Your task to perform on an android device: turn off picture-in-picture Image 0: 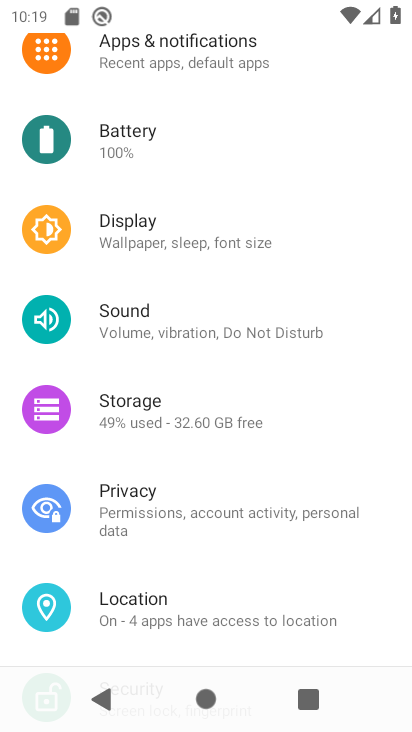
Step 0: press home button
Your task to perform on an android device: turn off picture-in-picture Image 1: 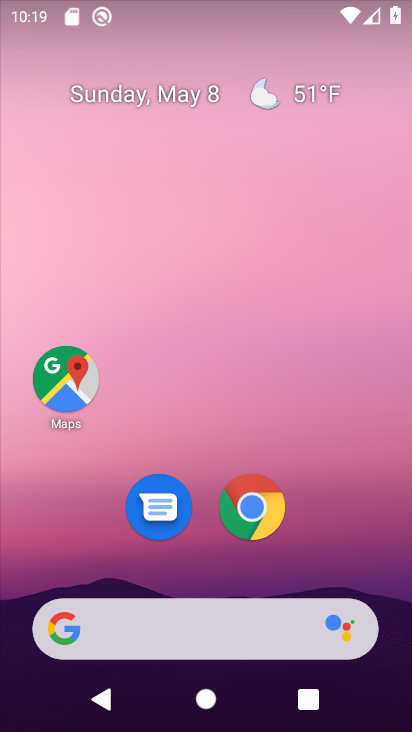
Step 1: click (250, 503)
Your task to perform on an android device: turn off picture-in-picture Image 2: 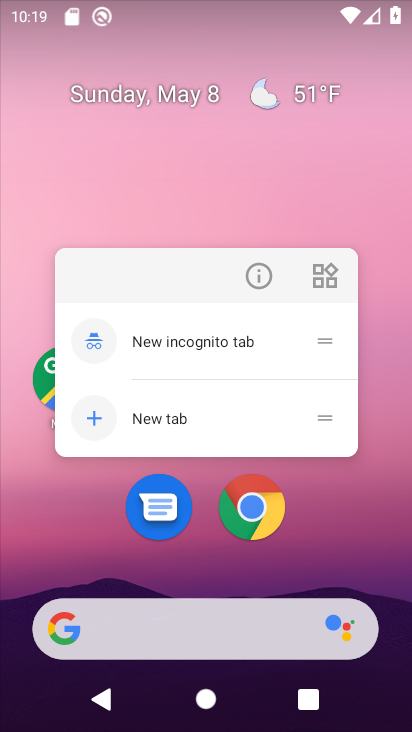
Step 2: click (259, 274)
Your task to perform on an android device: turn off picture-in-picture Image 3: 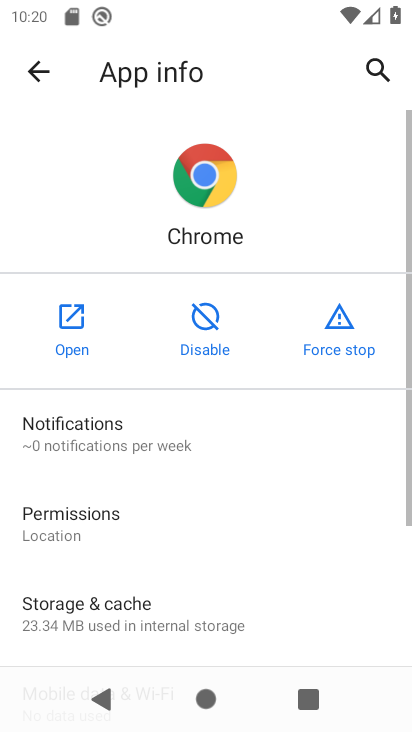
Step 3: drag from (212, 592) to (225, 208)
Your task to perform on an android device: turn off picture-in-picture Image 4: 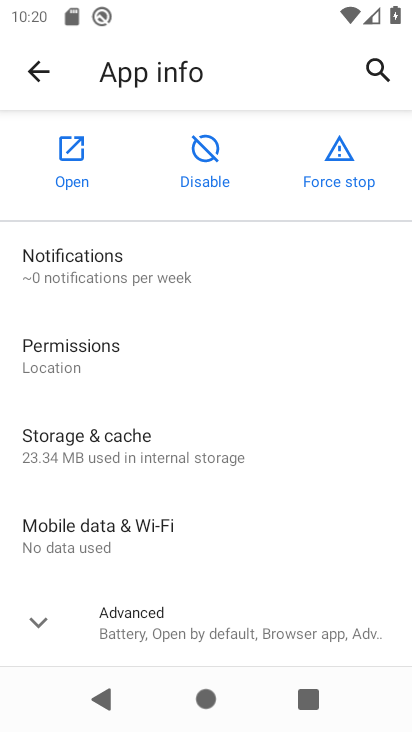
Step 4: click (38, 615)
Your task to perform on an android device: turn off picture-in-picture Image 5: 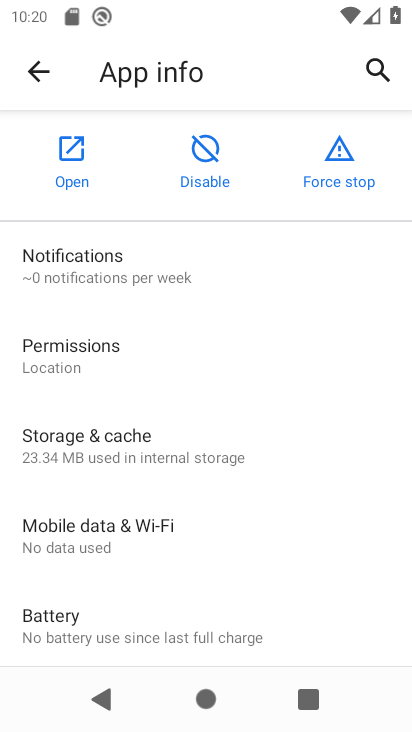
Step 5: drag from (173, 603) to (178, 506)
Your task to perform on an android device: turn off picture-in-picture Image 6: 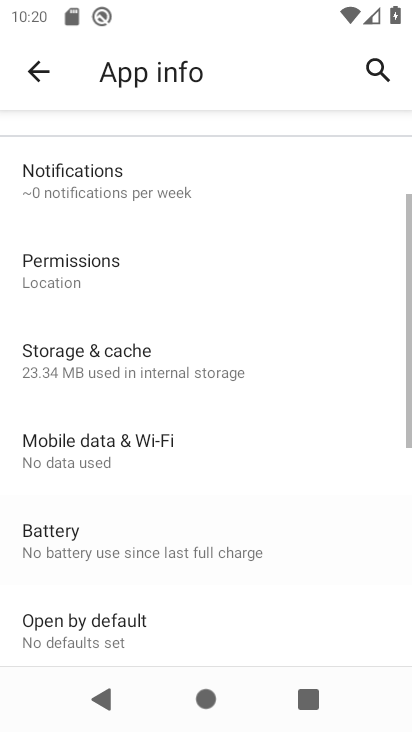
Step 6: drag from (182, 372) to (183, 262)
Your task to perform on an android device: turn off picture-in-picture Image 7: 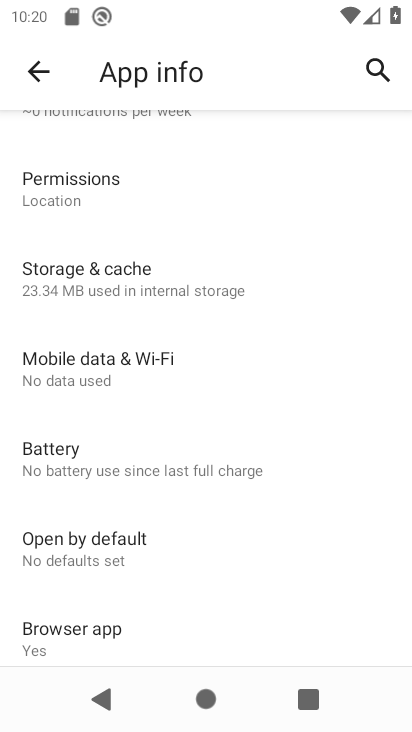
Step 7: drag from (159, 627) to (178, 260)
Your task to perform on an android device: turn off picture-in-picture Image 8: 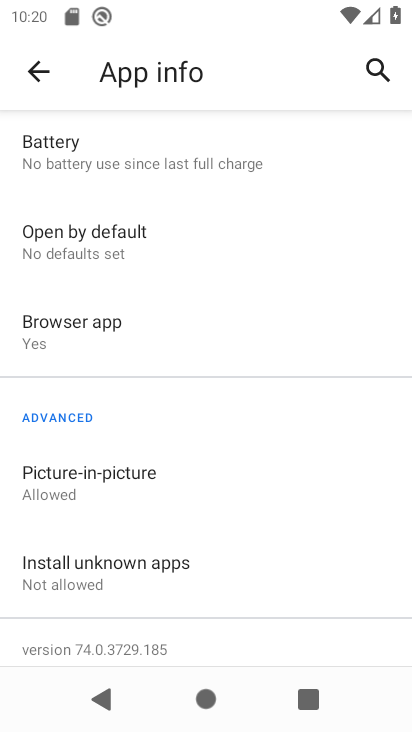
Step 8: click (82, 485)
Your task to perform on an android device: turn off picture-in-picture Image 9: 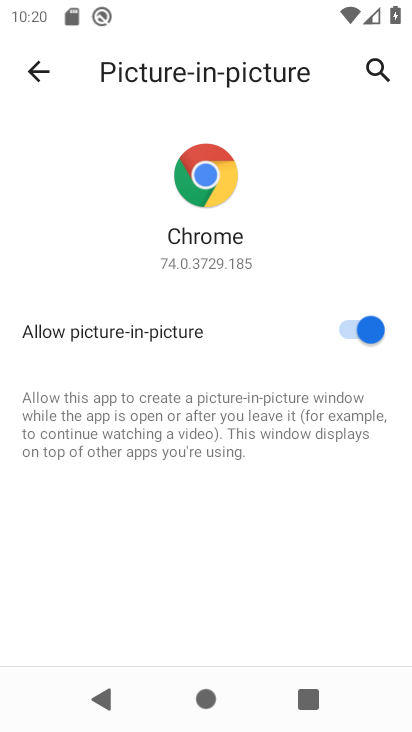
Step 9: click (357, 323)
Your task to perform on an android device: turn off picture-in-picture Image 10: 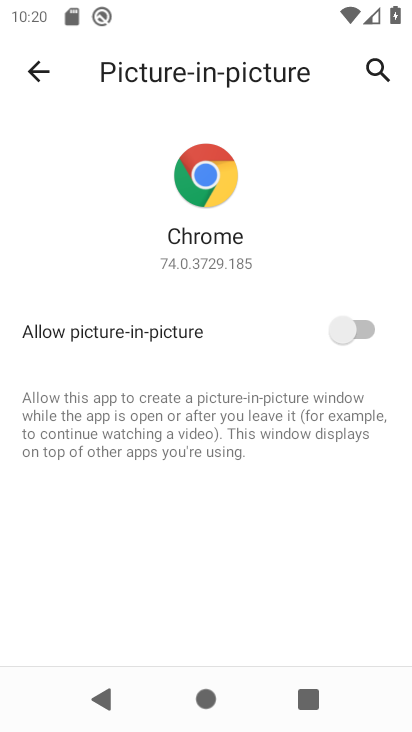
Step 10: task complete